Your task to perform on an android device: check storage Image 0: 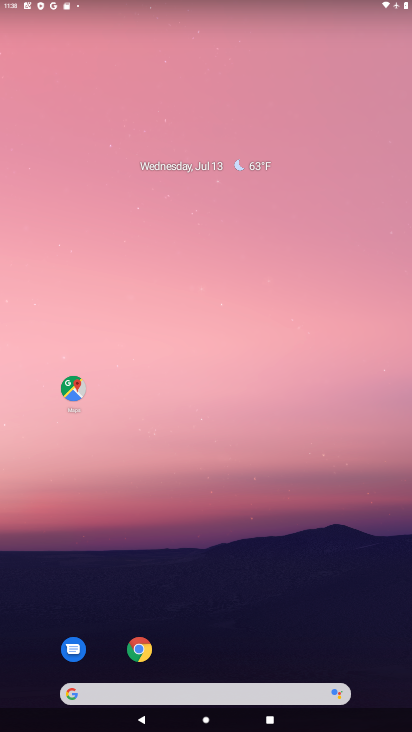
Step 0: drag from (247, 617) to (245, 162)
Your task to perform on an android device: check storage Image 1: 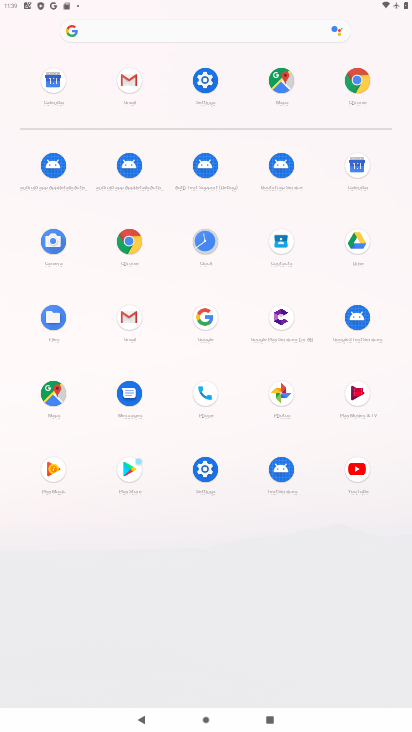
Step 1: click (194, 82)
Your task to perform on an android device: check storage Image 2: 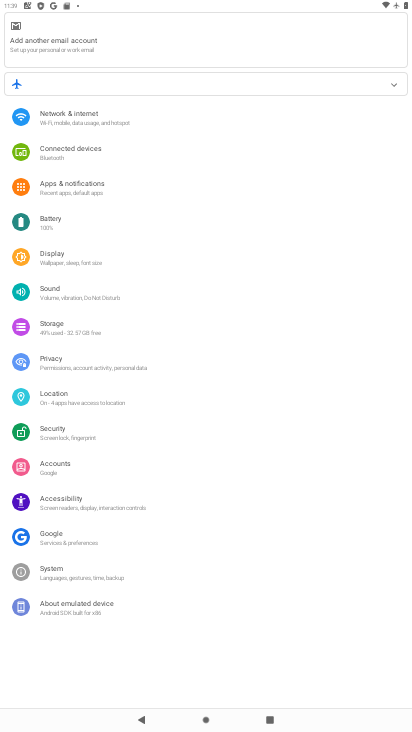
Step 2: click (64, 322)
Your task to perform on an android device: check storage Image 3: 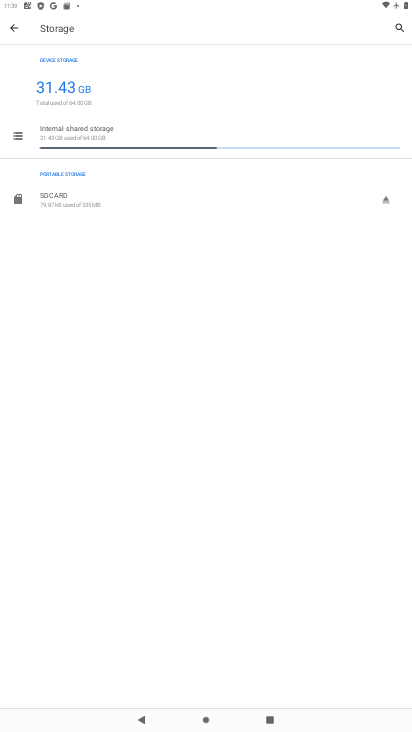
Step 3: task complete